Your task to perform on an android device: turn off picture-in-picture Image 0: 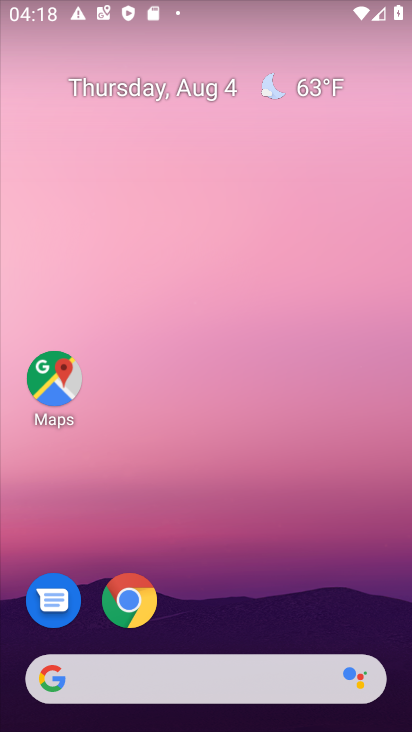
Step 0: click (135, 604)
Your task to perform on an android device: turn off picture-in-picture Image 1: 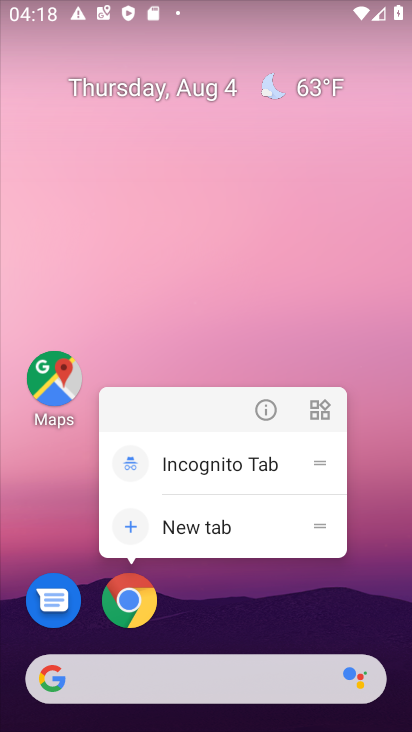
Step 1: click (269, 412)
Your task to perform on an android device: turn off picture-in-picture Image 2: 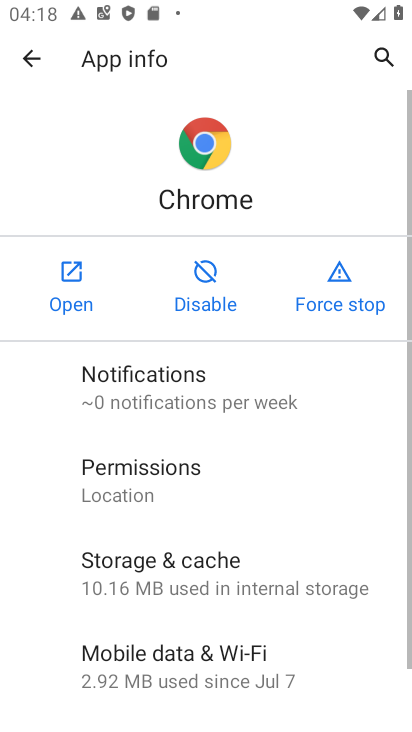
Step 2: drag from (301, 498) to (308, 79)
Your task to perform on an android device: turn off picture-in-picture Image 3: 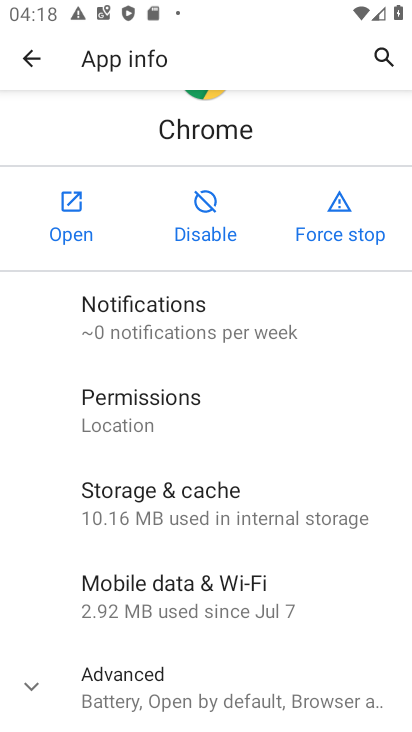
Step 3: click (128, 689)
Your task to perform on an android device: turn off picture-in-picture Image 4: 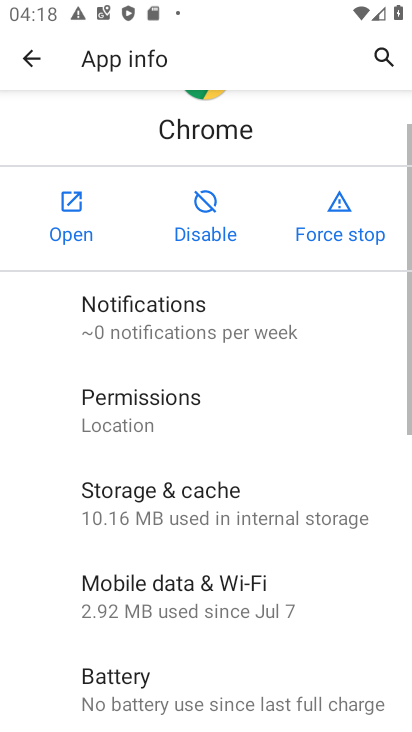
Step 4: drag from (359, 660) to (322, 112)
Your task to perform on an android device: turn off picture-in-picture Image 5: 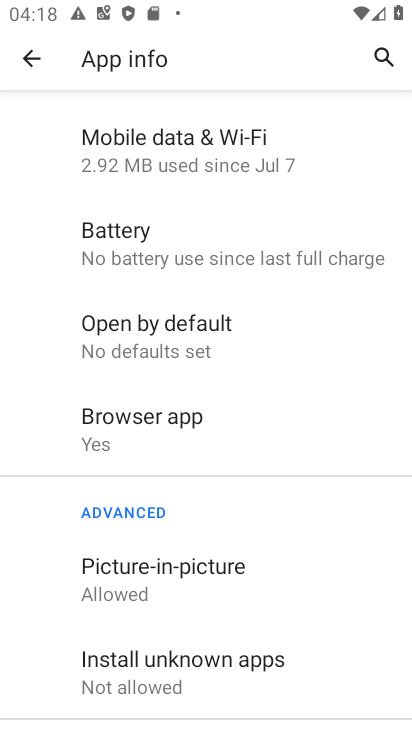
Step 5: drag from (318, 569) to (311, 196)
Your task to perform on an android device: turn off picture-in-picture Image 6: 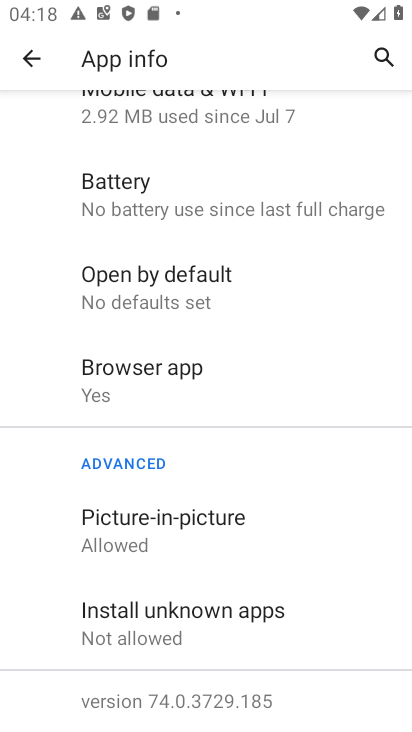
Step 6: click (134, 532)
Your task to perform on an android device: turn off picture-in-picture Image 7: 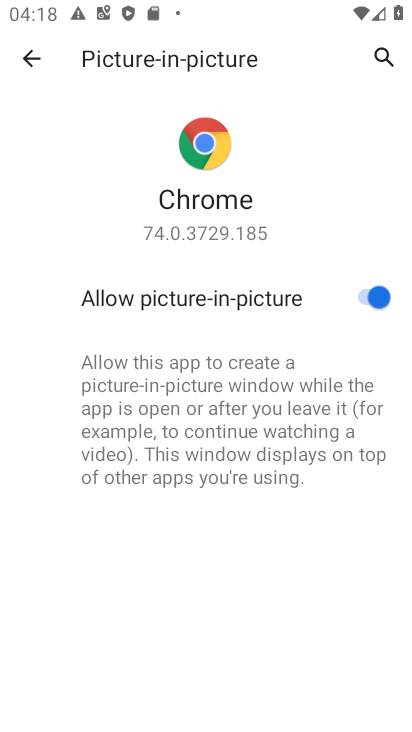
Step 7: click (379, 297)
Your task to perform on an android device: turn off picture-in-picture Image 8: 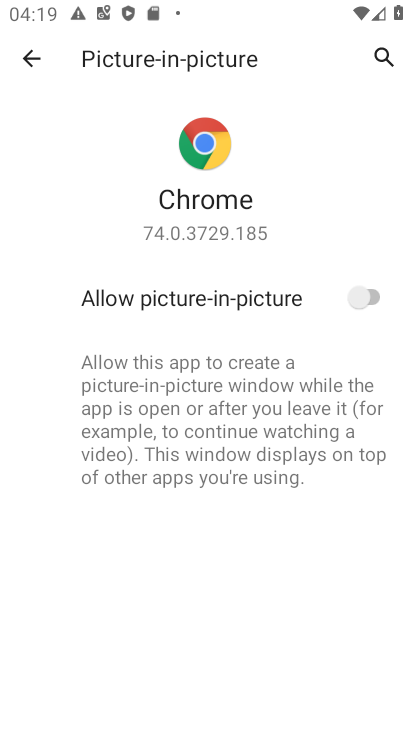
Step 8: task complete